Your task to perform on an android device: Go to network settings Image 0: 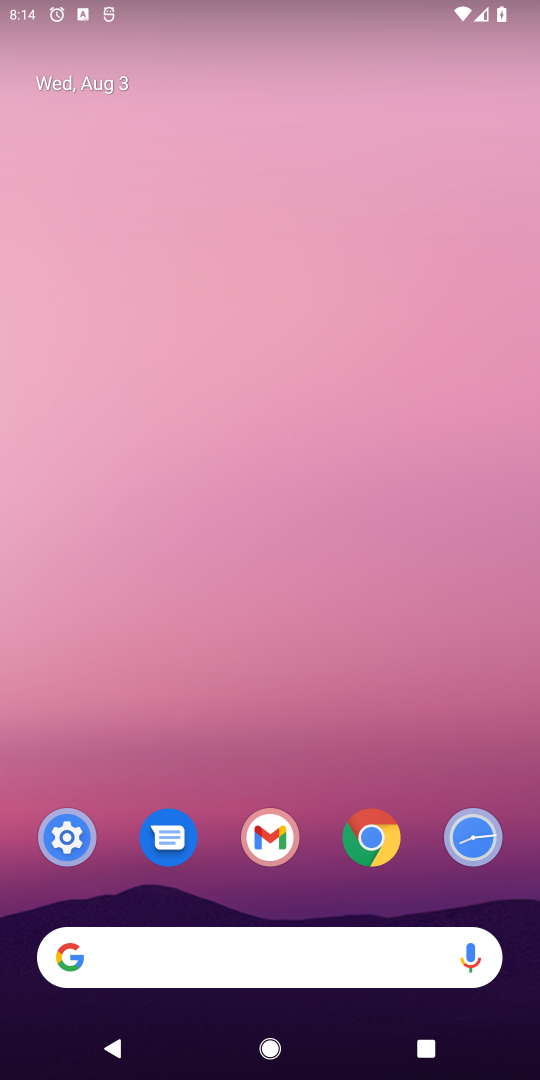
Step 0: press home button
Your task to perform on an android device: Go to network settings Image 1: 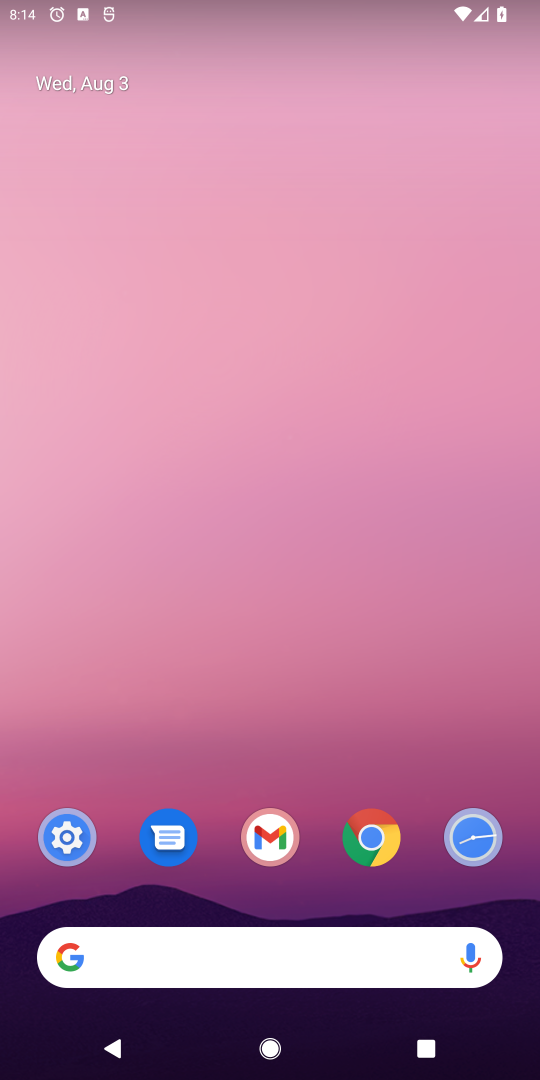
Step 1: drag from (220, 917) to (277, 144)
Your task to perform on an android device: Go to network settings Image 2: 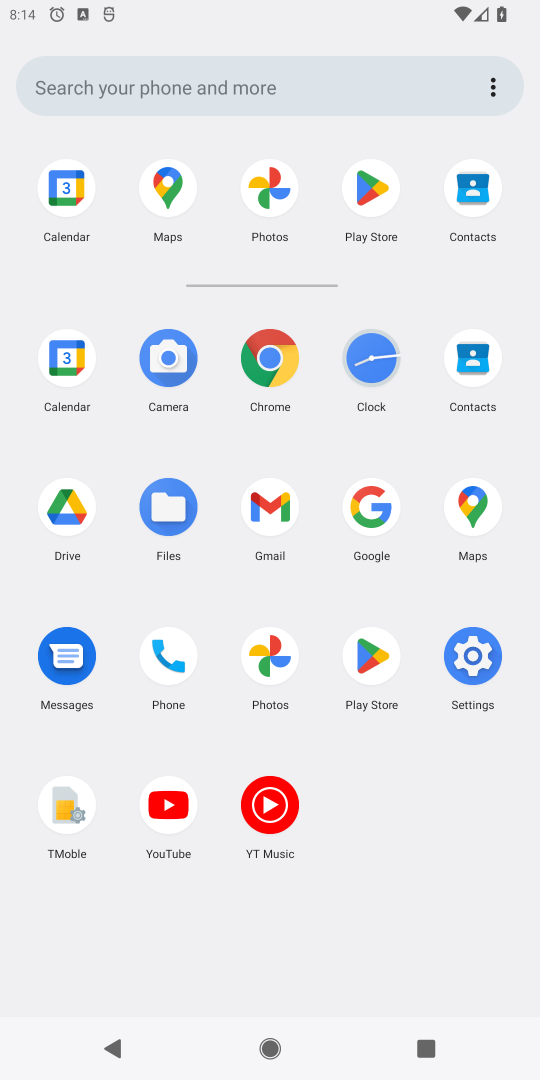
Step 2: click (477, 663)
Your task to perform on an android device: Go to network settings Image 3: 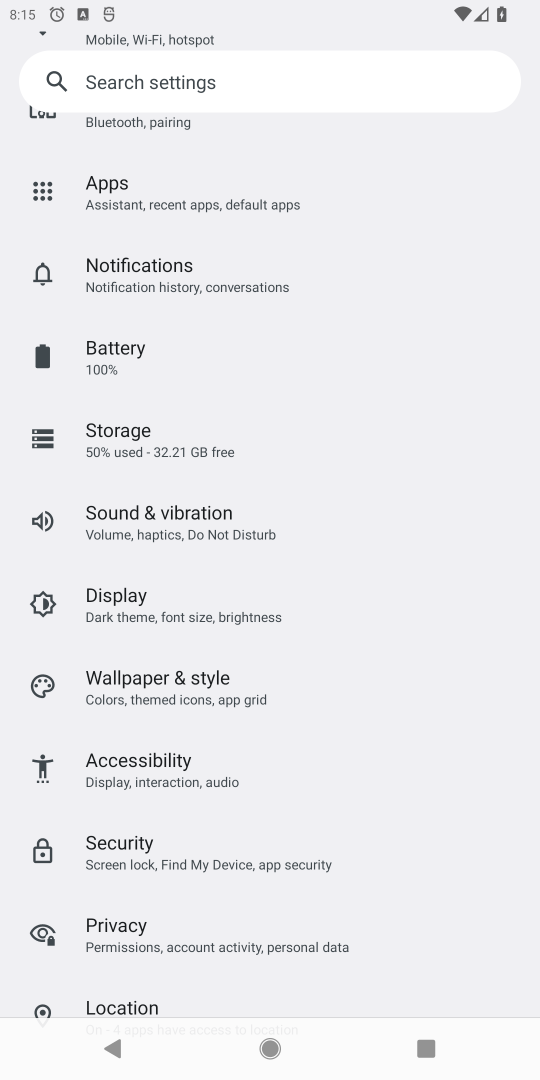
Step 3: drag from (367, 331) to (386, 990)
Your task to perform on an android device: Go to network settings Image 4: 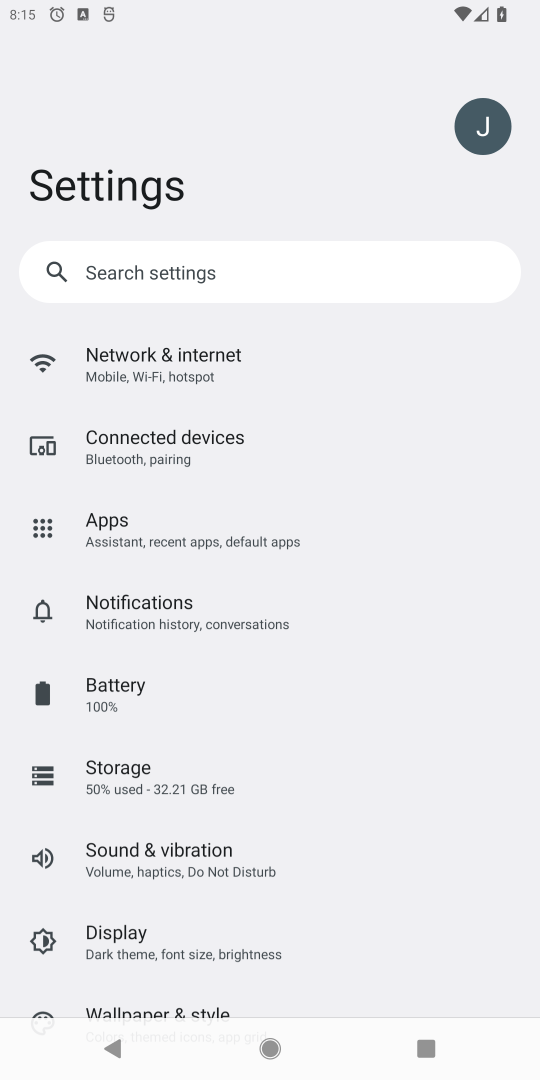
Step 4: click (162, 363)
Your task to perform on an android device: Go to network settings Image 5: 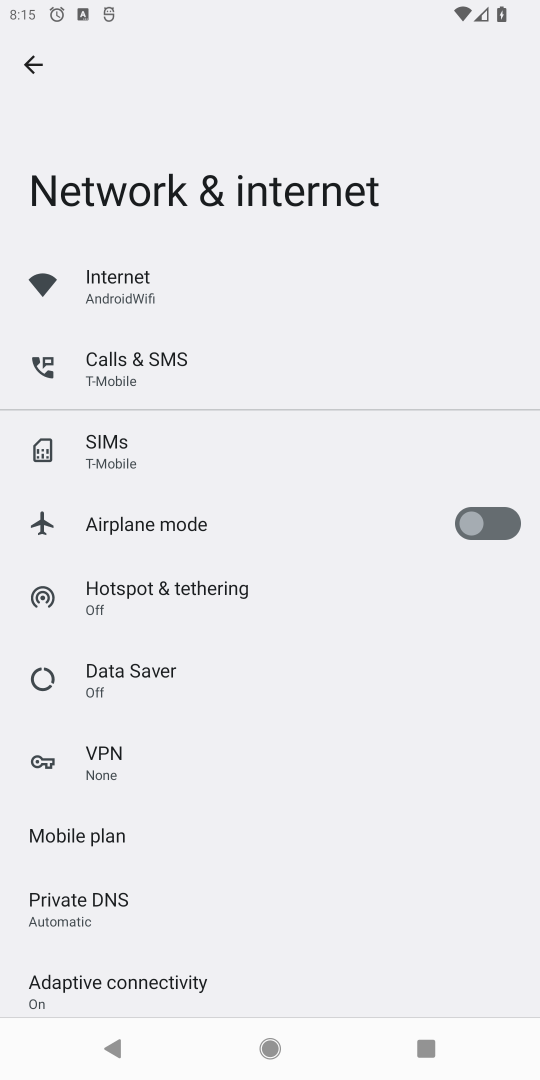
Step 5: task complete